Your task to perform on an android device: set the stopwatch Image 0: 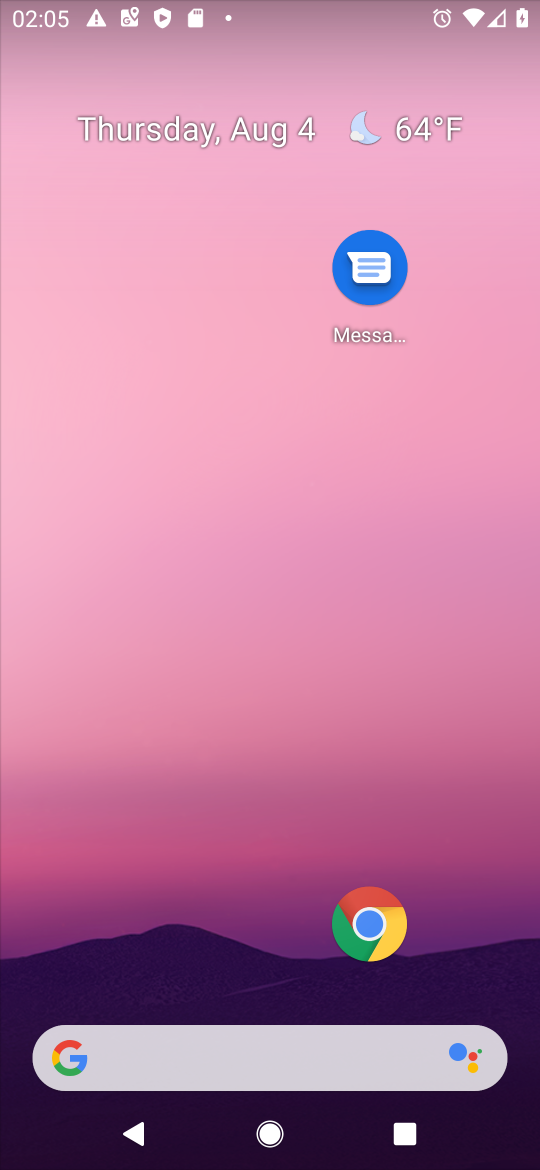
Step 0: drag from (69, 1144) to (327, 173)
Your task to perform on an android device: set the stopwatch Image 1: 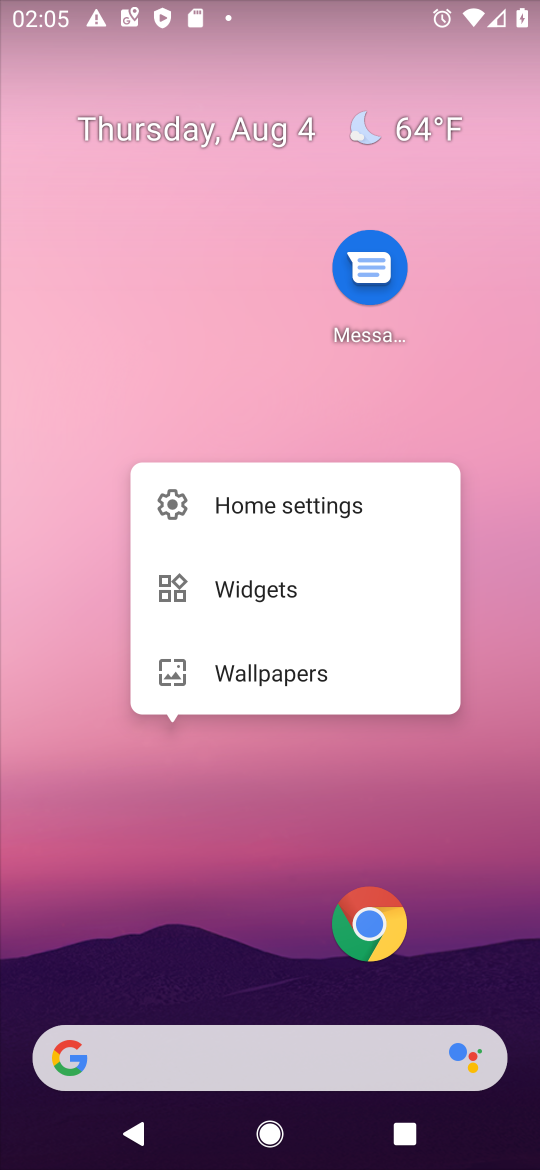
Step 1: drag from (0, 1117) to (324, 162)
Your task to perform on an android device: set the stopwatch Image 2: 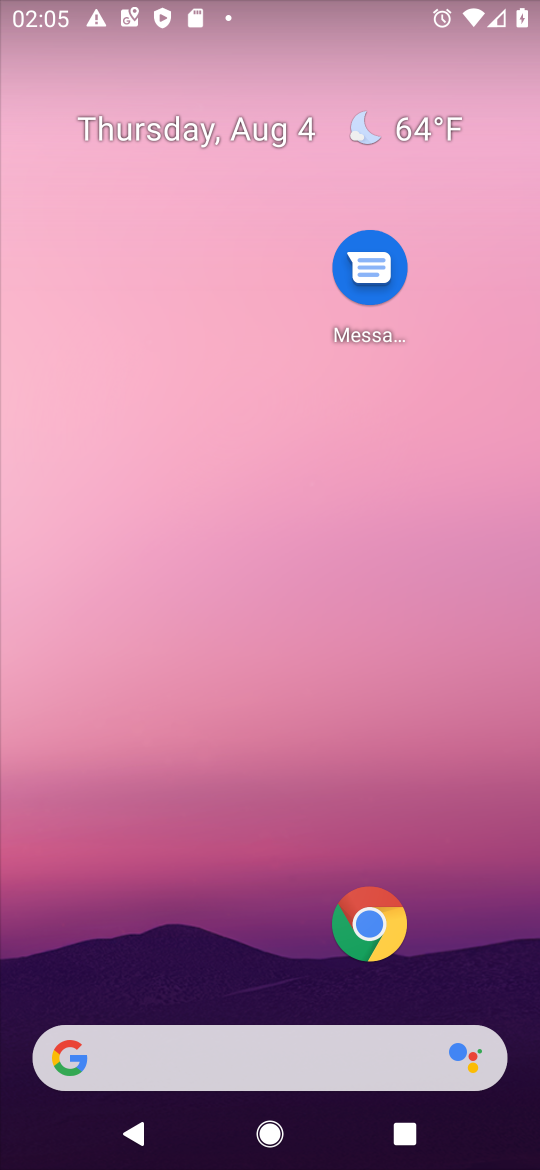
Step 2: drag from (160, 853) to (321, 134)
Your task to perform on an android device: set the stopwatch Image 3: 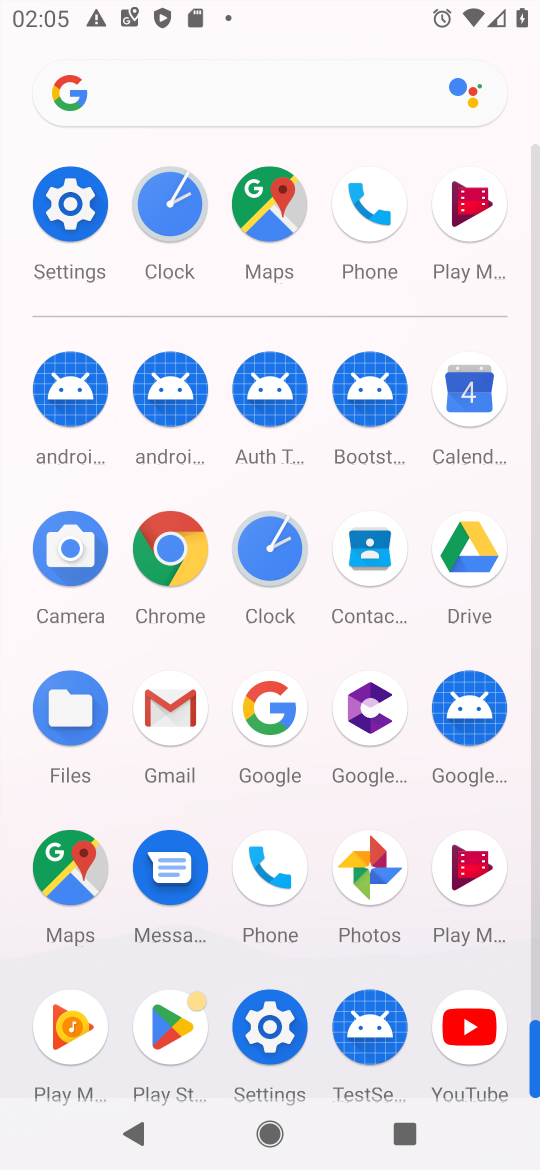
Step 3: click (170, 198)
Your task to perform on an android device: set the stopwatch Image 4: 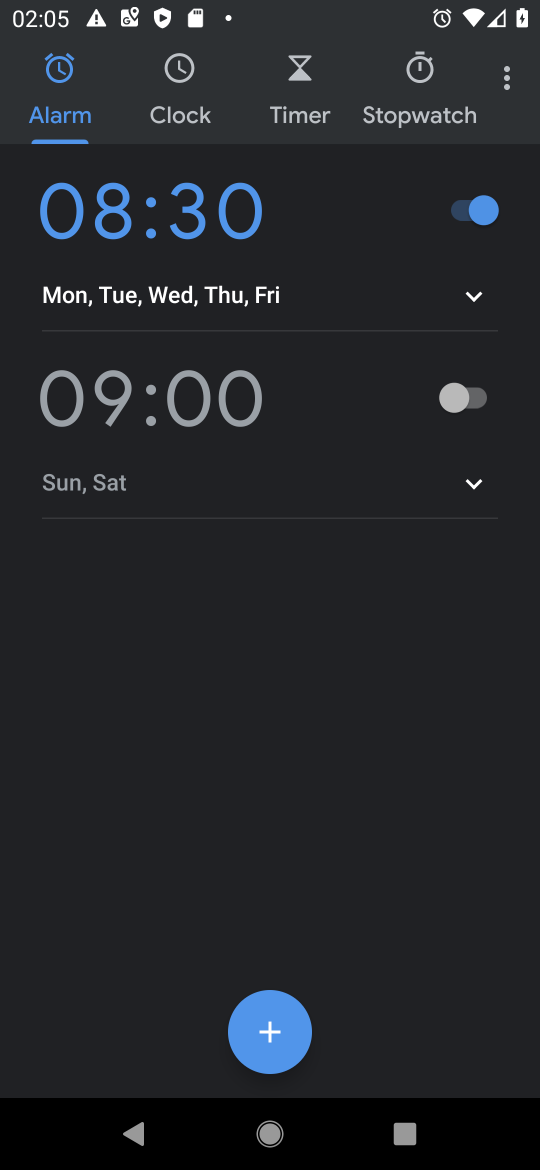
Step 4: click (417, 110)
Your task to perform on an android device: set the stopwatch Image 5: 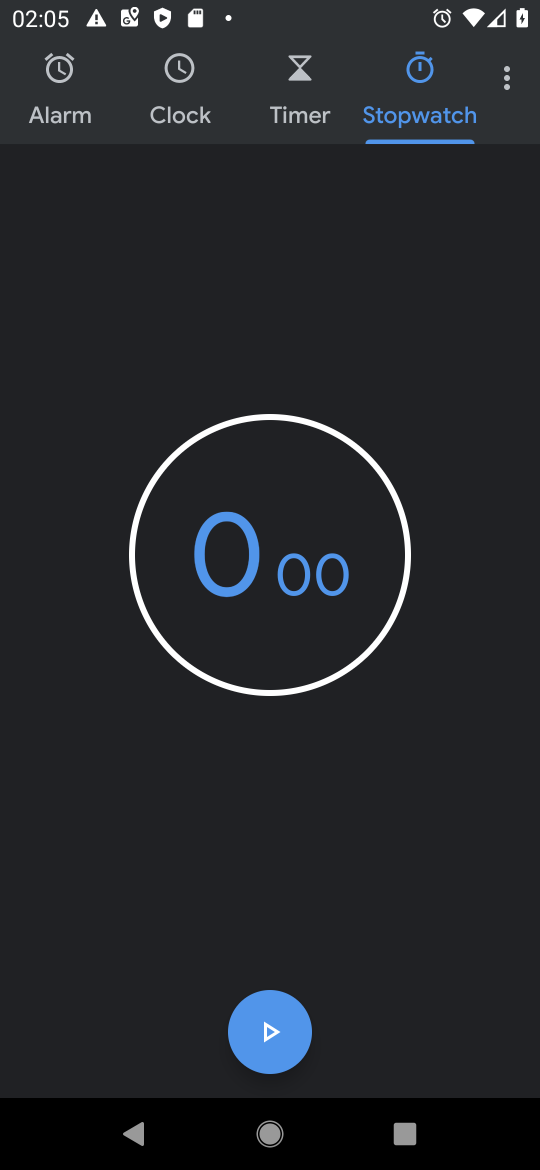
Step 5: click (239, 561)
Your task to perform on an android device: set the stopwatch Image 6: 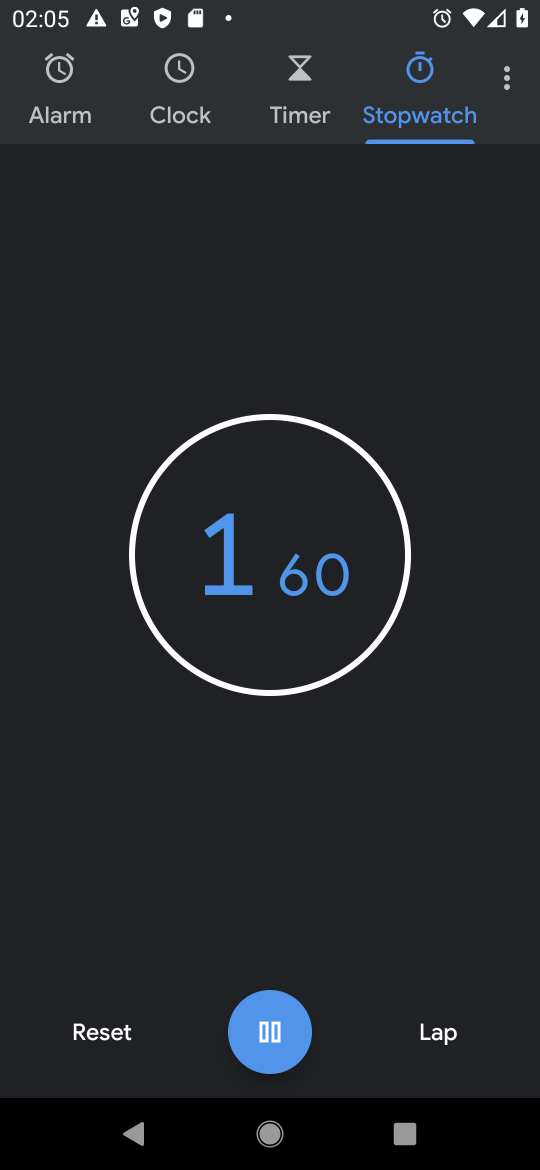
Step 6: click (253, 1048)
Your task to perform on an android device: set the stopwatch Image 7: 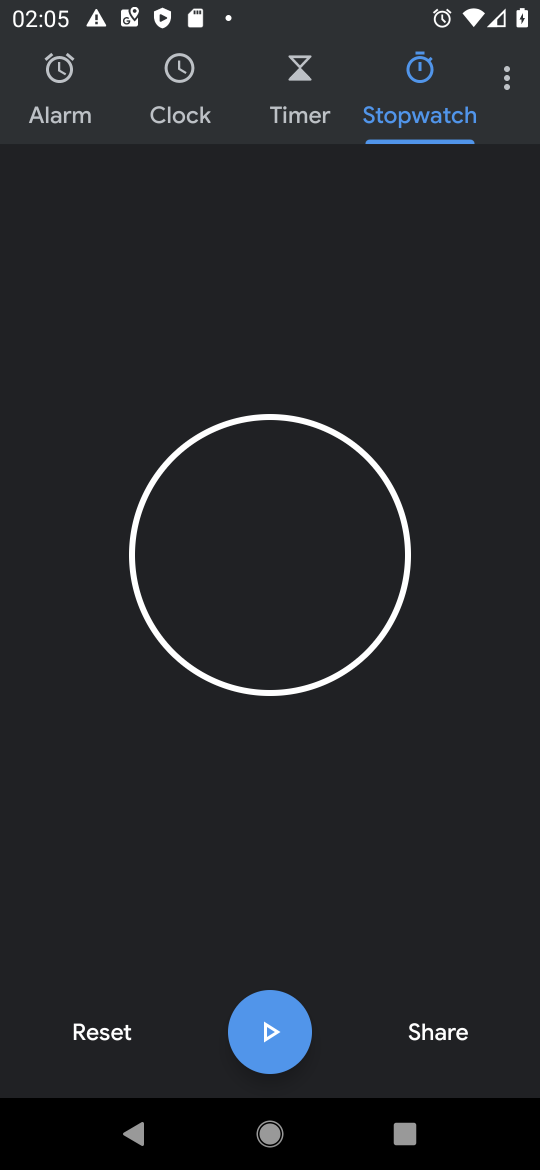
Step 7: task complete